Your task to perform on an android device: What is the news today? Image 0: 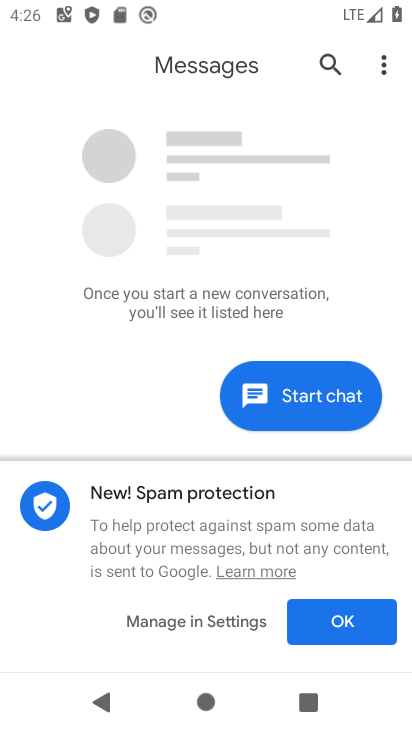
Step 0: press home button
Your task to perform on an android device: What is the news today? Image 1: 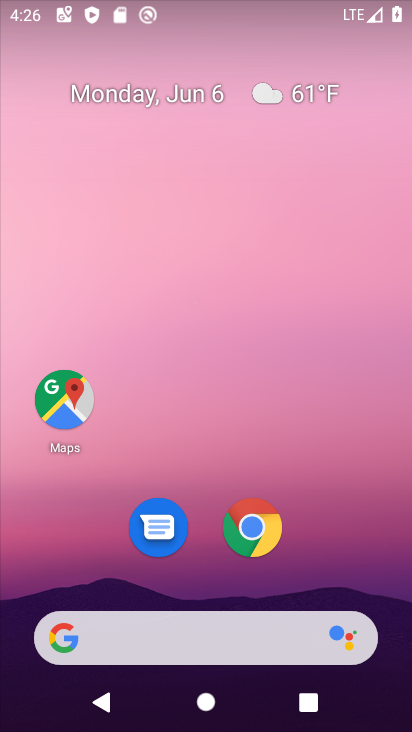
Step 1: click (182, 614)
Your task to perform on an android device: What is the news today? Image 2: 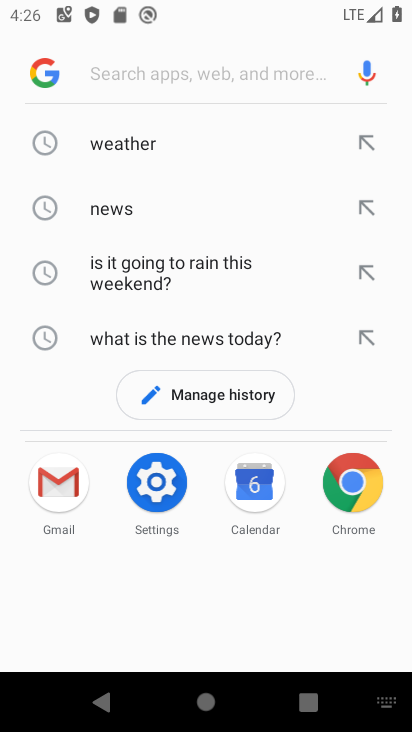
Step 2: type "news today"
Your task to perform on an android device: What is the news today? Image 3: 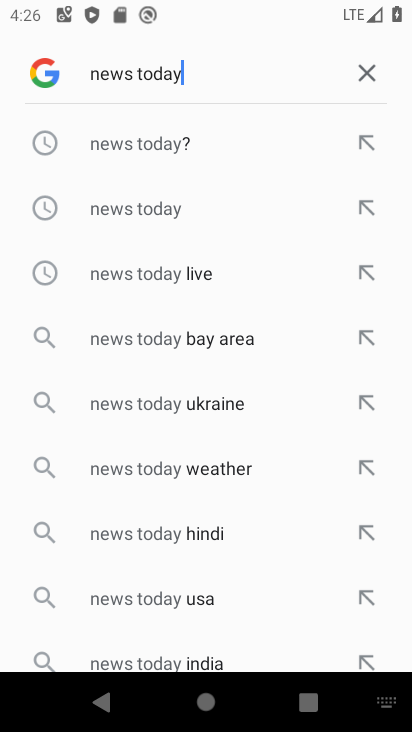
Step 3: click (185, 141)
Your task to perform on an android device: What is the news today? Image 4: 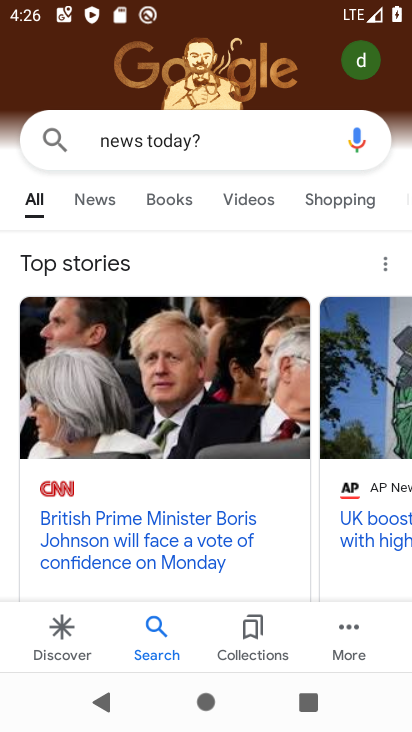
Step 4: task complete